Your task to perform on an android device: Open Google Chrome and click the shortcut for Amazon.com Image 0: 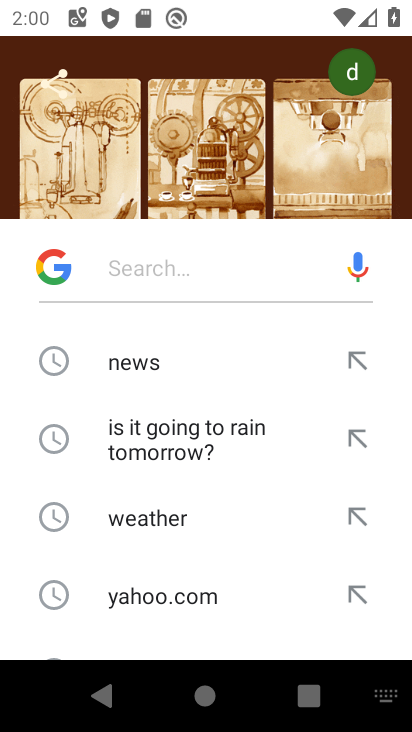
Step 0: press home button
Your task to perform on an android device: Open Google Chrome and click the shortcut for Amazon.com Image 1: 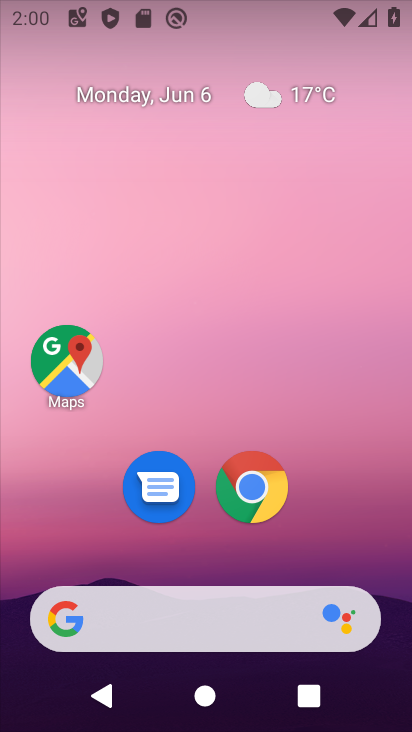
Step 1: click (268, 493)
Your task to perform on an android device: Open Google Chrome and click the shortcut for Amazon.com Image 2: 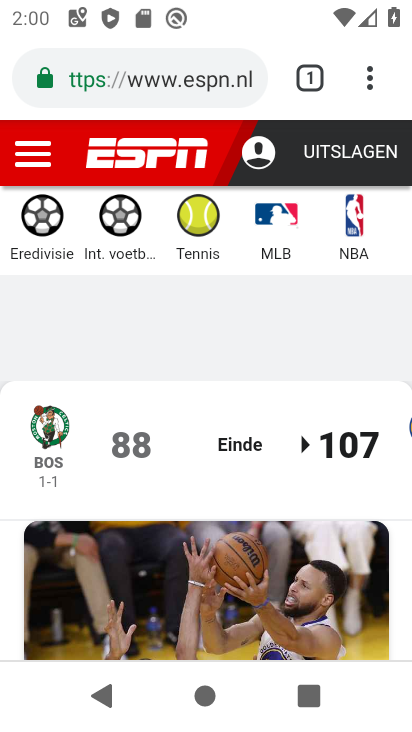
Step 2: drag from (360, 69) to (261, 168)
Your task to perform on an android device: Open Google Chrome and click the shortcut for Amazon.com Image 3: 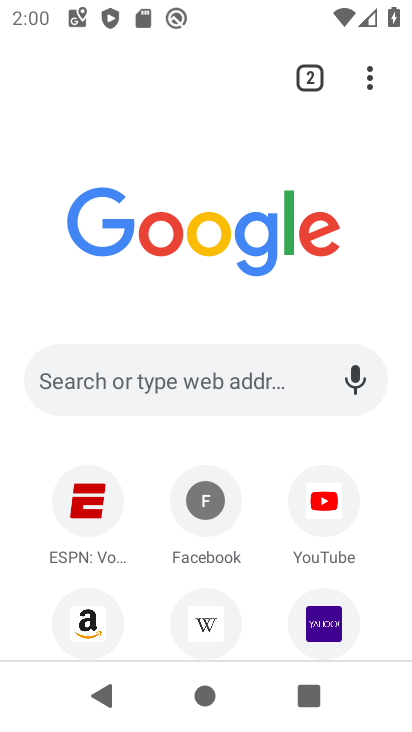
Step 3: click (62, 629)
Your task to perform on an android device: Open Google Chrome and click the shortcut for Amazon.com Image 4: 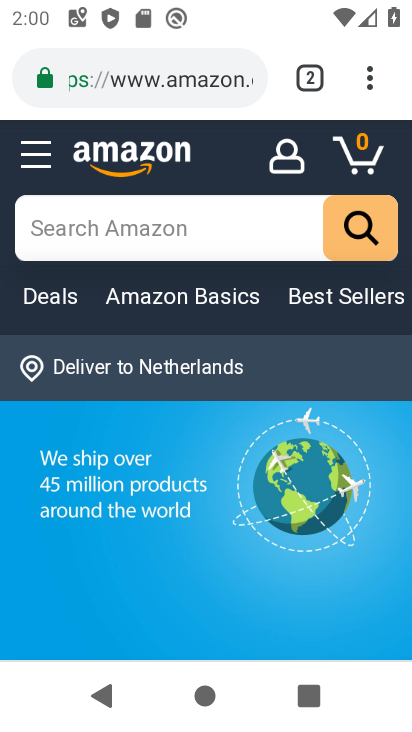
Step 4: task complete